Your task to perform on an android device: turn notification dots on Image 0: 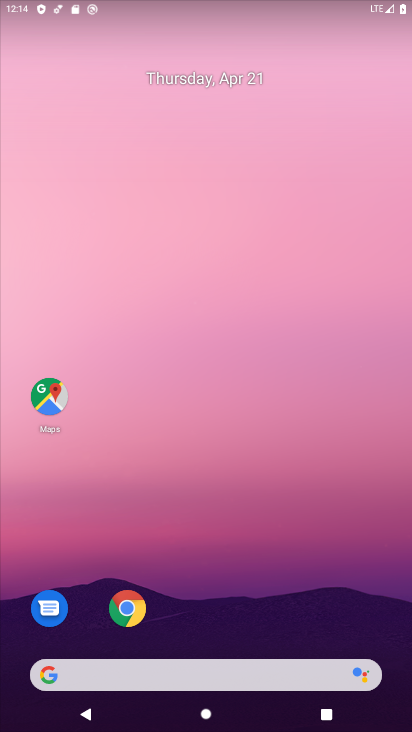
Step 0: drag from (214, 563) to (252, 135)
Your task to perform on an android device: turn notification dots on Image 1: 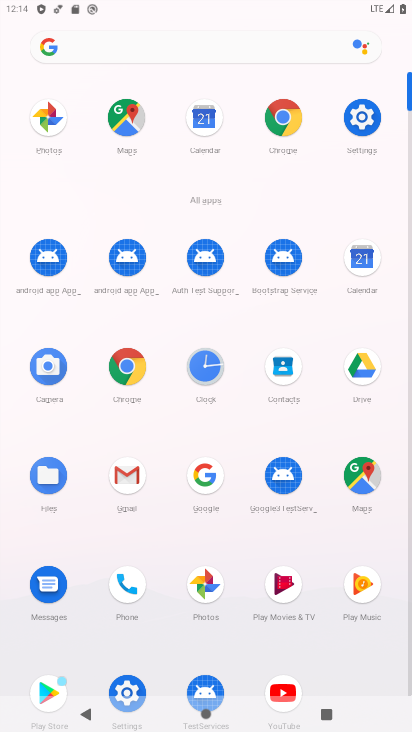
Step 1: click (357, 115)
Your task to perform on an android device: turn notification dots on Image 2: 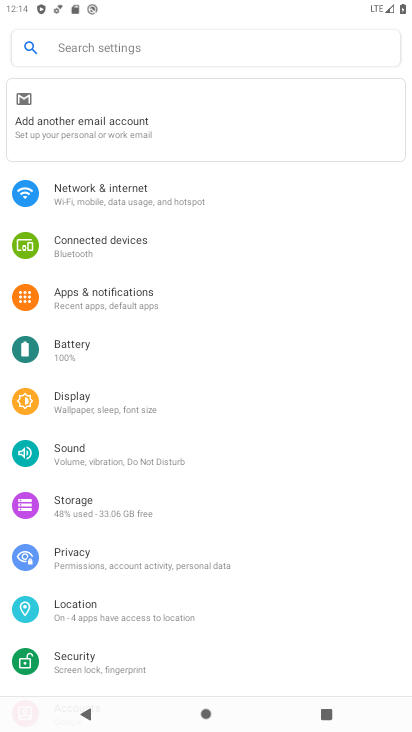
Step 2: click (157, 299)
Your task to perform on an android device: turn notification dots on Image 3: 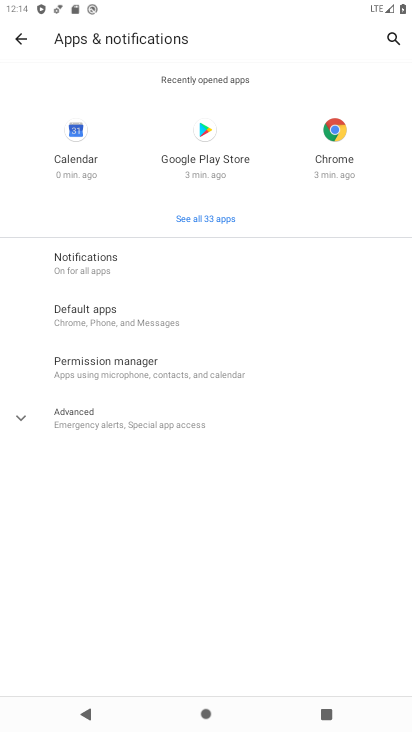
Step 3: click (124, 270)
Your task to perform on an android device: turn notification dots on Image 4: 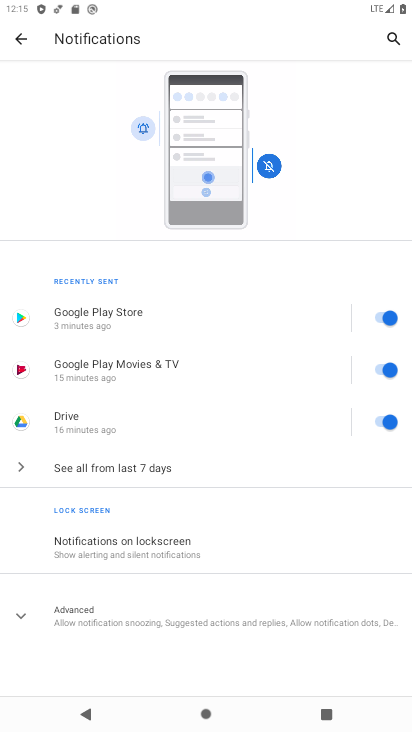
Step 4: drag from (204, 601) to (238, 318)
Your task to perform on an android device: turn notification dots on Image 5: 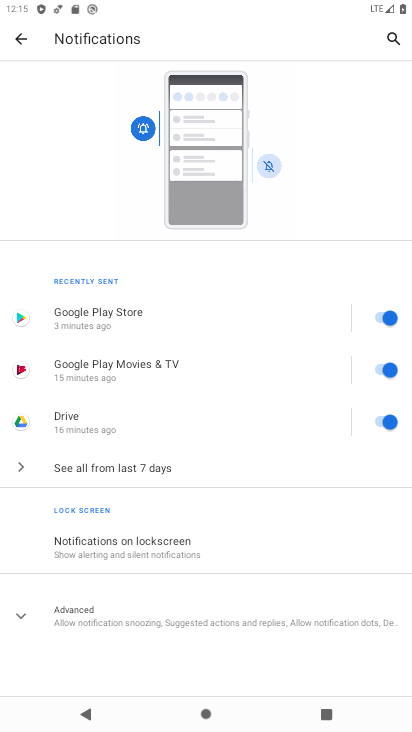
Step 5: click (140, 610)
Your task to perform on an android device: turn notification dots on Image 6: 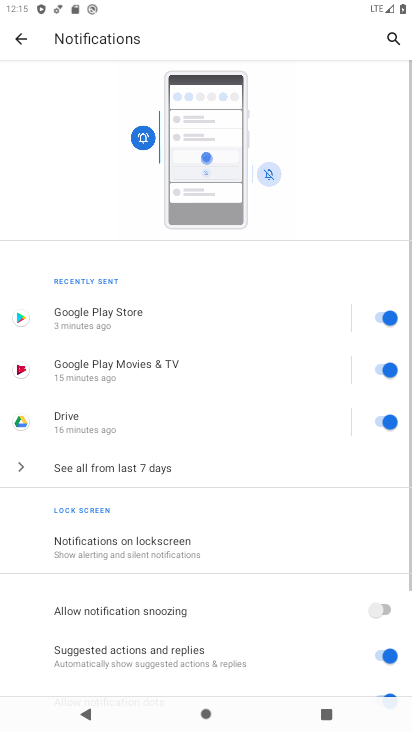
Step 6: drag from (241, 576) to (279, 161)
Your task to perform on an android device: turn notification dots on Image 7: 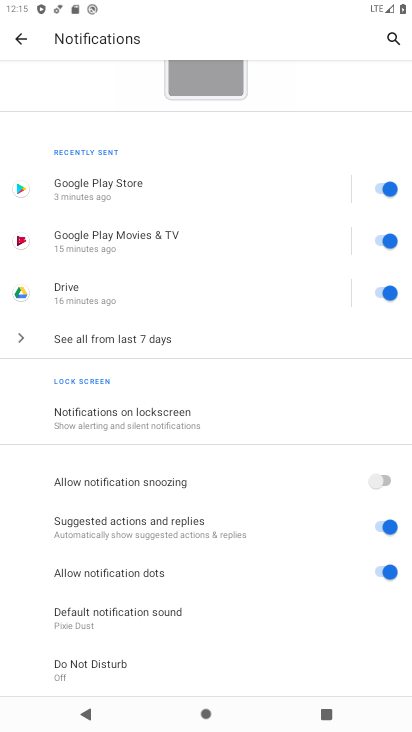
Step 7: click (373, 573)
Your task to perform on an android device: turn notification dots on Image 8: 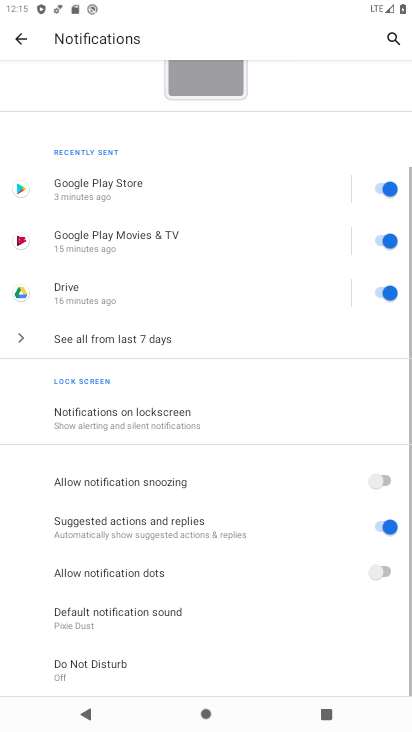
Step 8: task complete